Your task to perform on an android device: turn off airplane mode Image 0: 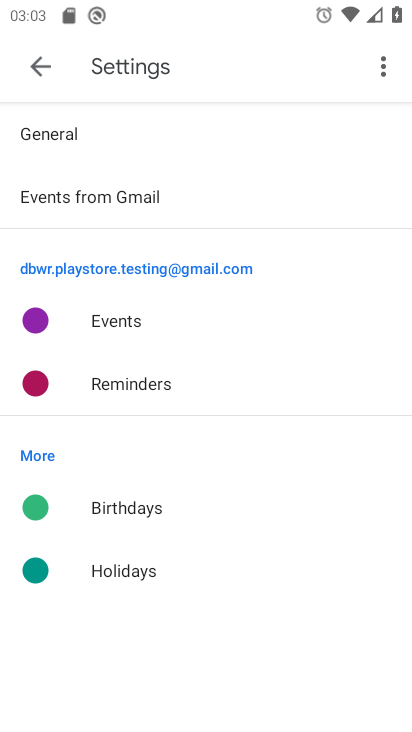
Step 0: press home button
Your task to perform on an android device: turn off airplane mode Image 1: 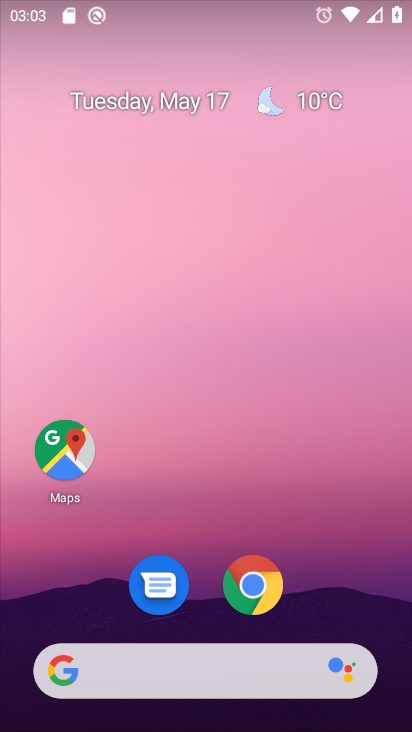
Step 1: drag from (210, 512) to (271, 30)
Your task to perform on an android device: turn off airplane mode Image 2: 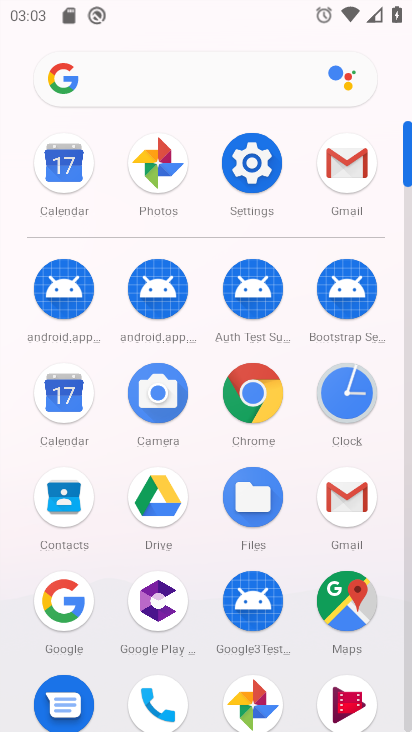
Step 2: click (256, 167)
Your task to perform on an android device: turn off airplane mode Image 3: 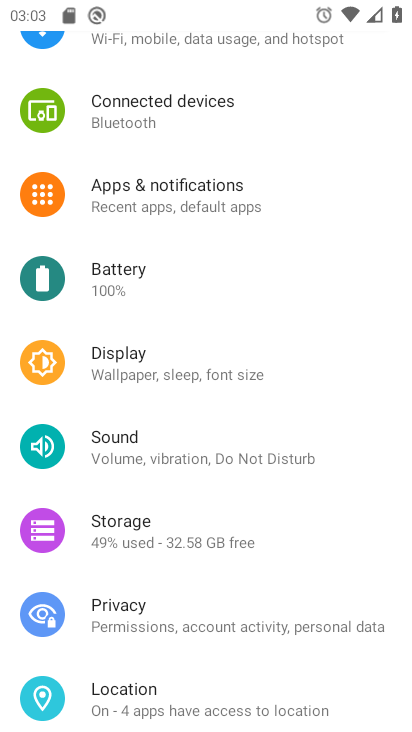
Step 3: drag from (250, 317) to (236, 590)
Your task to perform on an android device: turn off airplane mode Image 4: 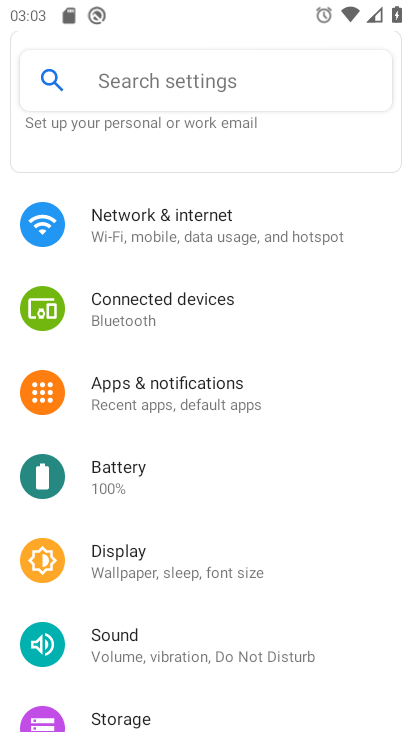
Step 4: click (251, 219)
Your task to perform on an android device: turn off airplane mode Image 5: 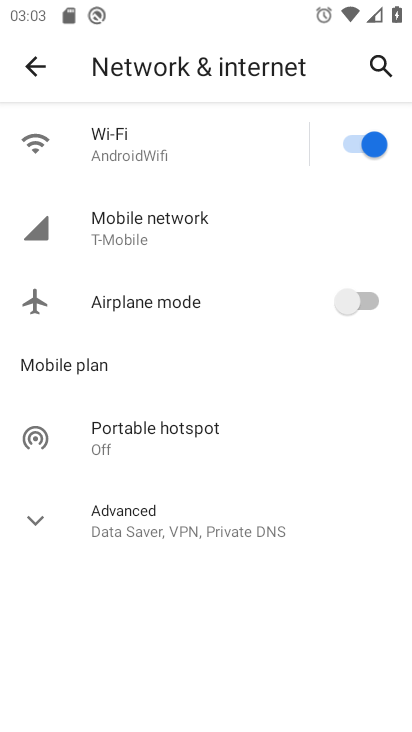
Step 5: task complete